Your task to perform on an android device: open app "Microsoft Excel" (install if not already installed), go to login, and select forgot password Image 0: 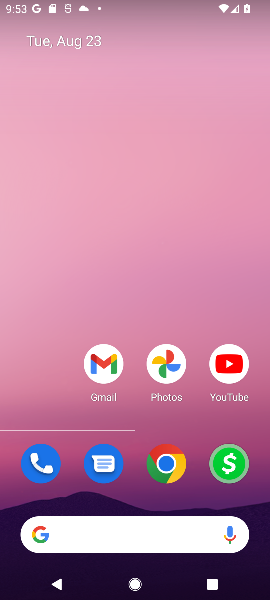
Step 0: press home button
Your task to perform on an android device: open app "Microsoft Excel" (install if not already installed), go to login, and select forgot password Image 1: 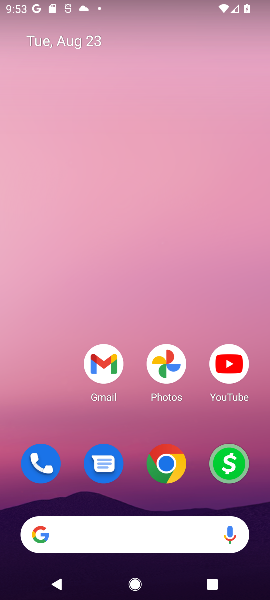
Step 1: drag from (132, 439) to (130, 10)
Your task to perform on an android device: open app "Microsoft Excel" (install if not already installed), go to login, and select forgot password Image 2: 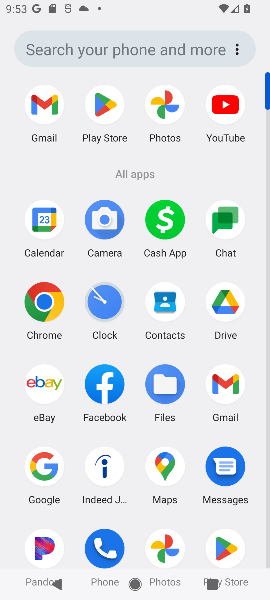
Step 2: click (105, 99)
Your task to perform on an android device: open app "Microsoft Excel" (install if not already installed), go to login, and select forgot password Image 3: 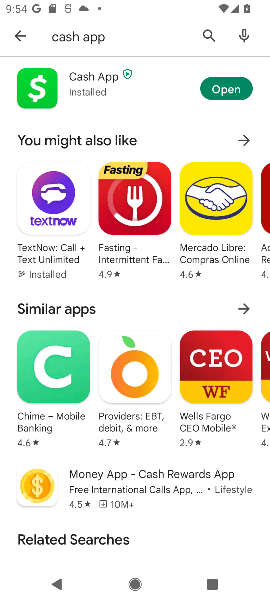
Step 3: click (201, 33)
Your task to perform on an android device: open app "Microsoft Excel" (install if not already installed), go to login, and select forgot password Image 4: 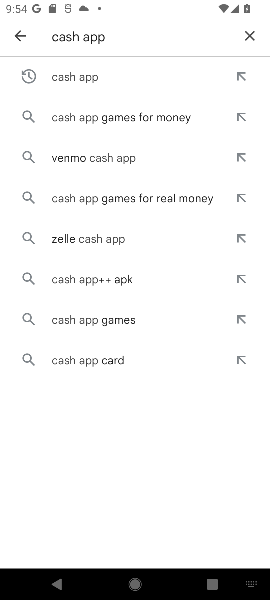
Step 4: click (252, 34)
Your task to perform on an android device: open app "Microsoft Excel" (install if not already installed), go to login, and select forgot password Image 5: 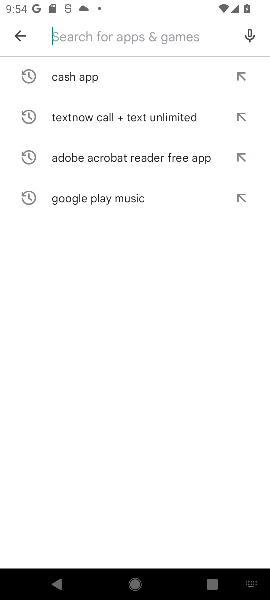
Step 5: type "Microsoft Excel"
Your task to perform on an android device: open app "Microsoft Excel" (install if not already installed), go to login, and select forgot password Image 6: 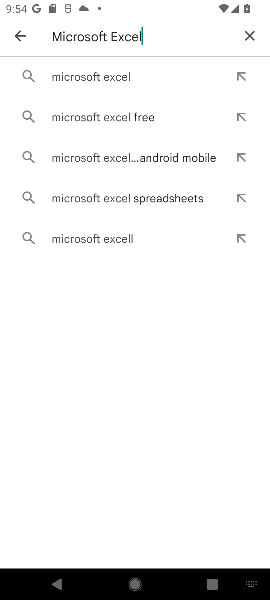
Step 6: click (86, 74)
Your task to perform on an android device: open app "Microsoft Excel" (install if not already installed), go to login, and select forgot password Image 7: 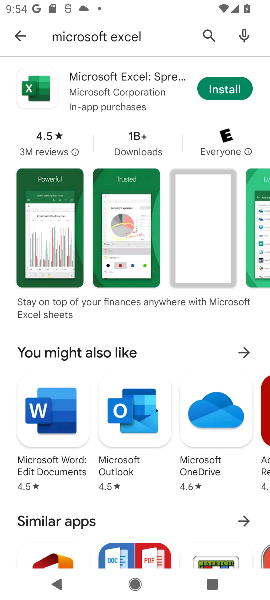
Step 7: click (225, 84)
Your task to perform on an android device: open app "Microsoft Excel" (install if not already installed), go to login, and select forgot password Image 8: 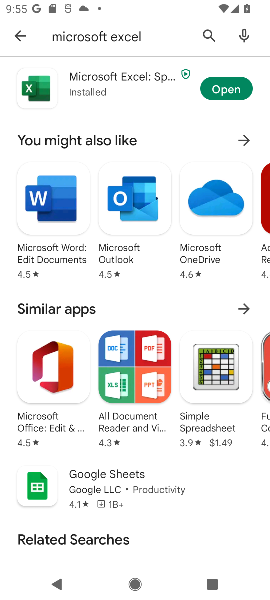
Step 8: click (235, 92)
Your task to perform on an android device: open app "Microsoft Excel" (install if not already installed), go to login, and select forgot password Image 9: 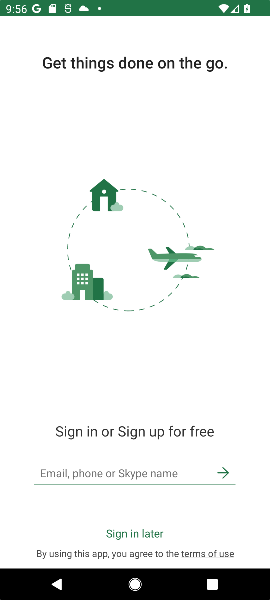
Step 9: click (135, 531)
Your task to perform on an android device: open app "Microsoft Excel" (install if not already installed), go to login, and select forgot password Image 10: 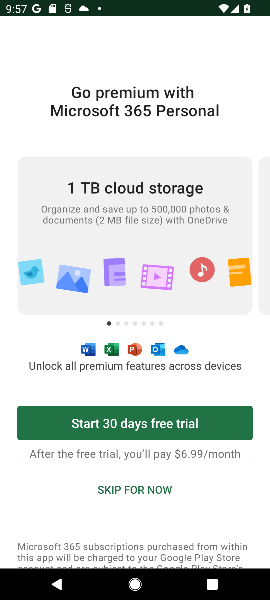
Step 10: click (147, 487)
Your task to perform on an android device: open app "Microsoft Excel" (install if not already installed), go to login, and select forgot password Image 11: 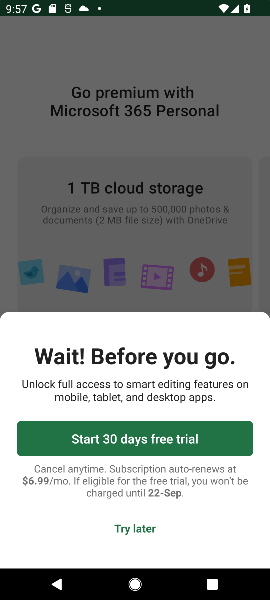
Step 11: click (130, 519)
Your task to perform on an android device: open app "Microsoft Excel" (install if not already installed), go to login, and select forgot password Image 12: 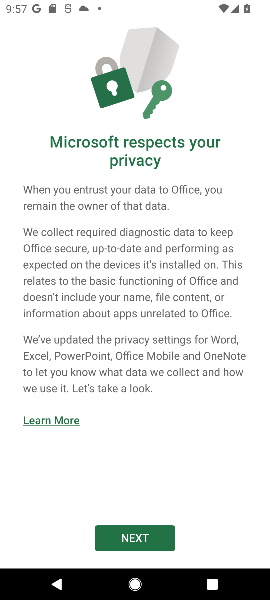
Step 12: click (133, 547)
Your task to perform on an android device: open app "Microsoft Excel" (install if not already installed), go to login, and select forgot password Image 13: 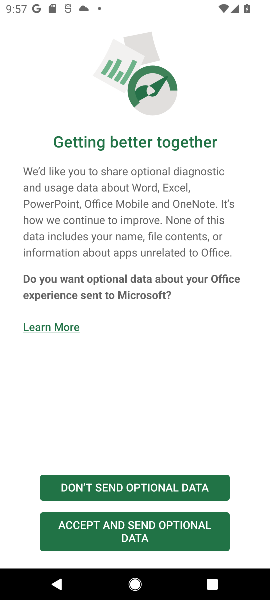
Step 13: task complete